Your task to perform on an android device: Add amazon basics triple a to the cart on ebay Image 0: 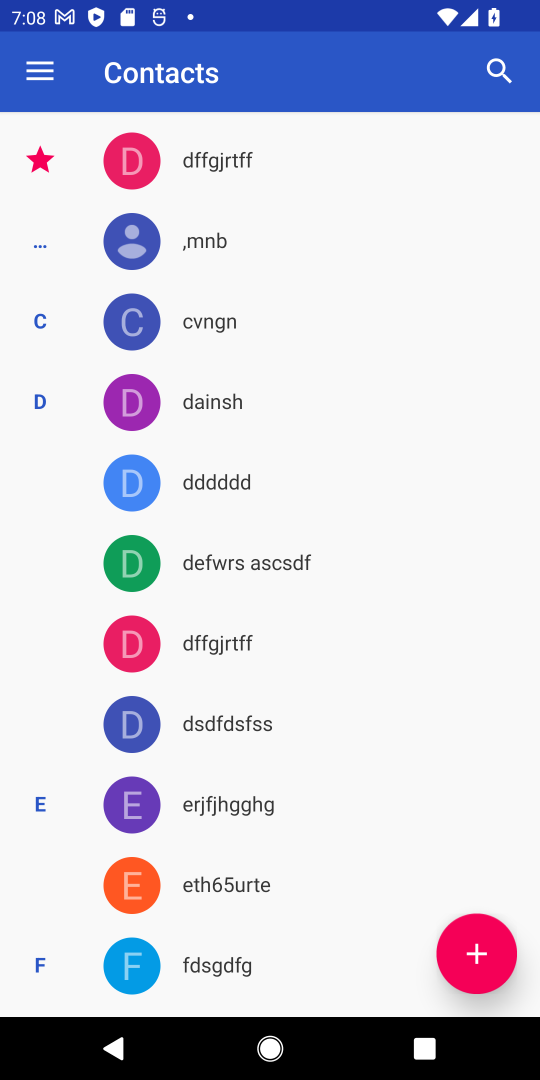
Step 0: press home button
Your task to perform on an android device: Add amazon basics triple a to the cart on ebay Image 1: 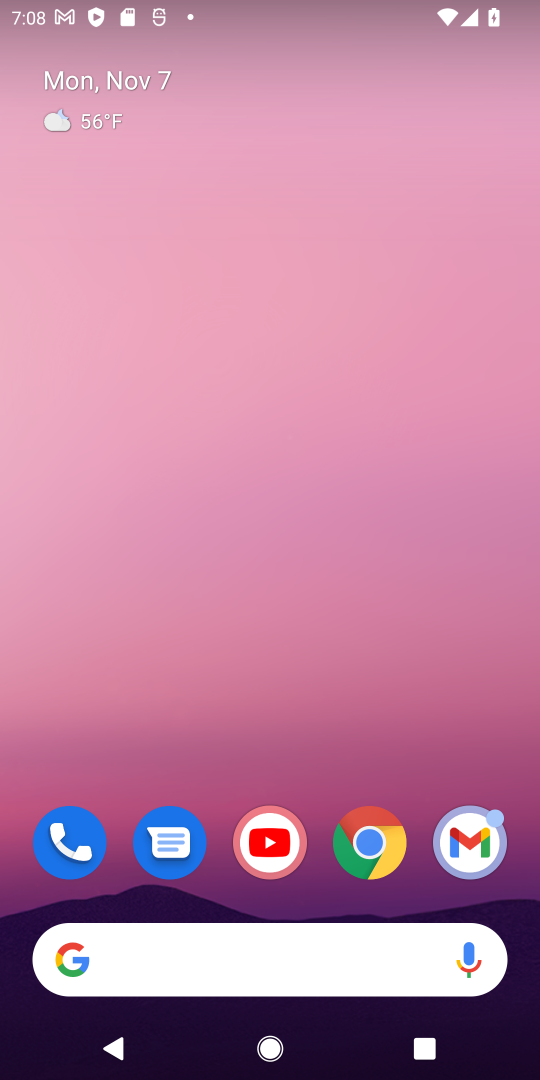
Step 1: click (368, 852)
Your task to perform on an android device: Add amazon basics triple a to the cart on ebay Image 2: 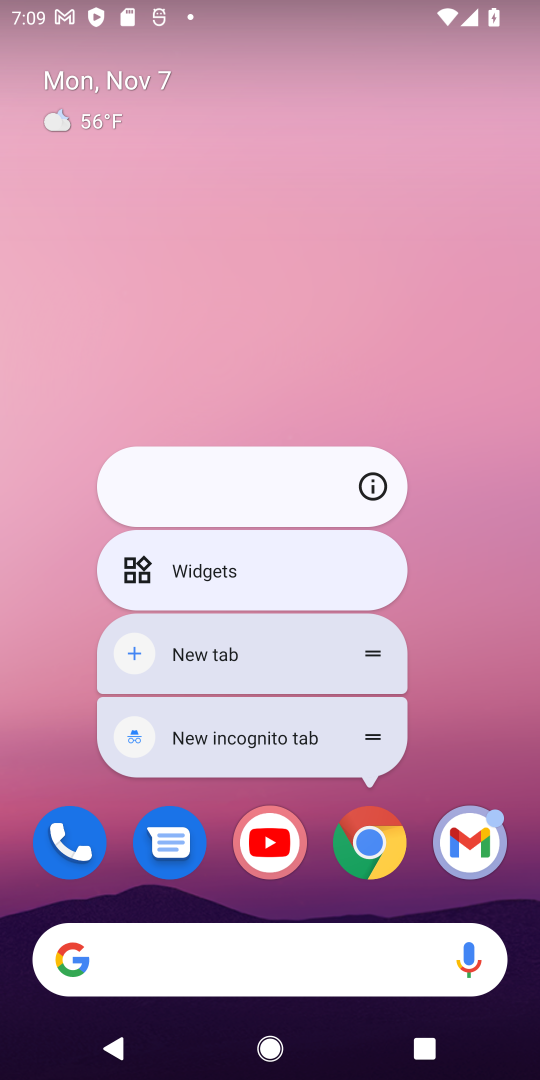
Step 2: click (367, 850)
Your task to perform on an android device: Add amazon basics triple a to the cart on ebay Image 3: 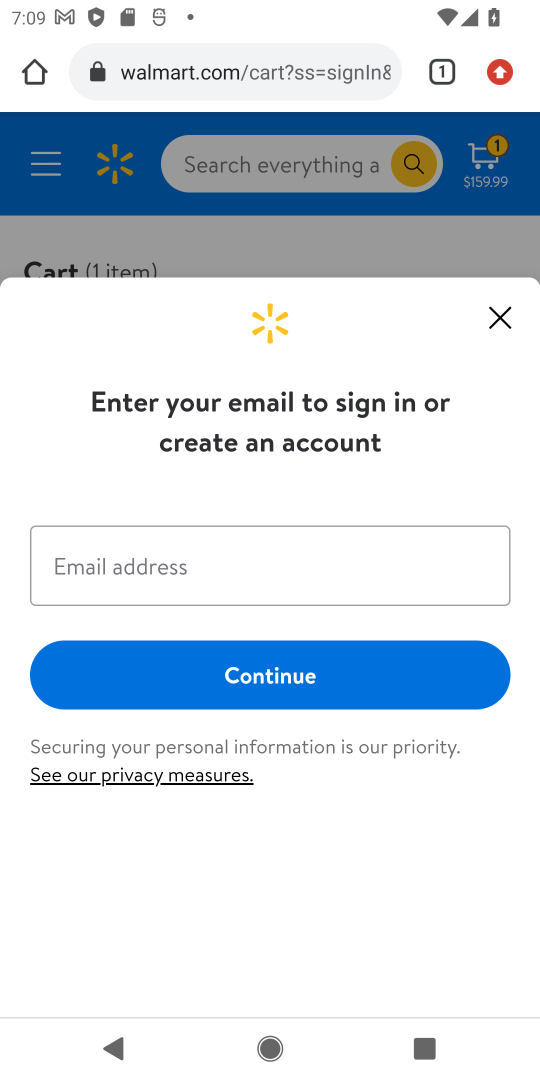
Step 3: click (274, 72)
Your task to perform on an android device: Add amazon basics triple a to the cart on ebay Image 4: 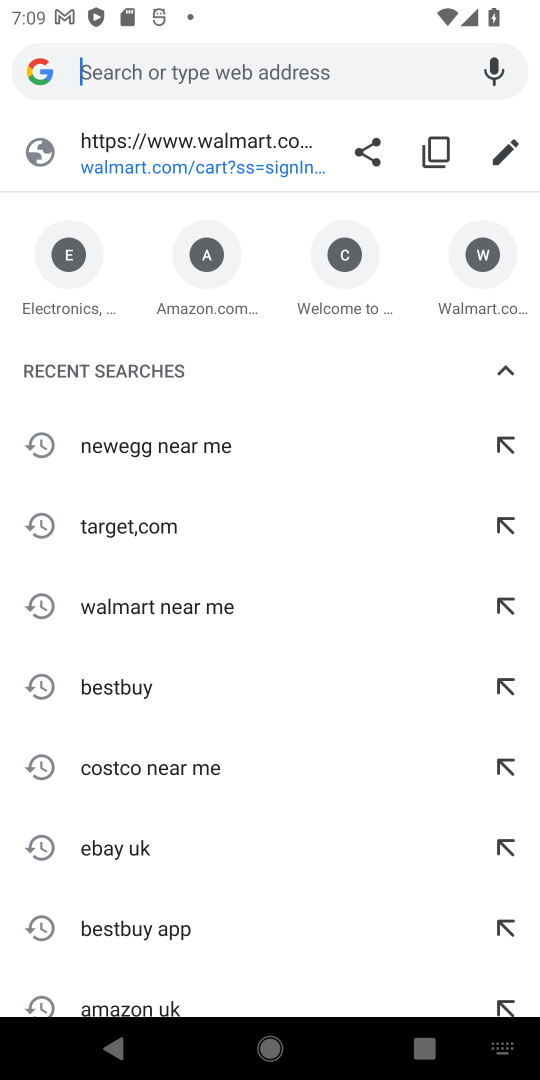
Step 4: click (60, 308)
Your task to perform on an android device: Add amazon basics triple a to the cart on ebay Image 5: 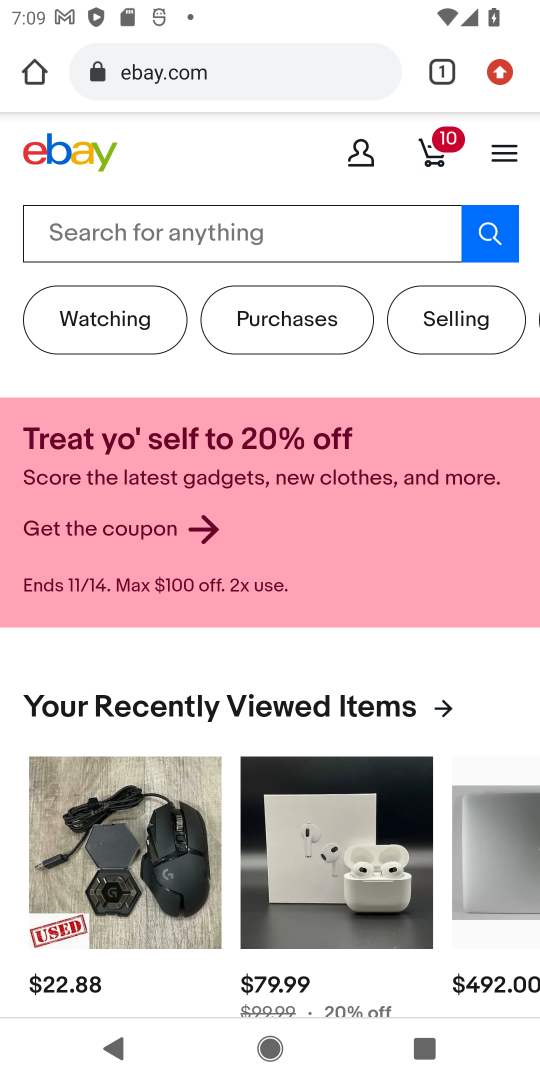
Step 5: click (179, 233)
Your task to perform on an android device: Add amazon basics triple a to the cart on ebay Image 6: 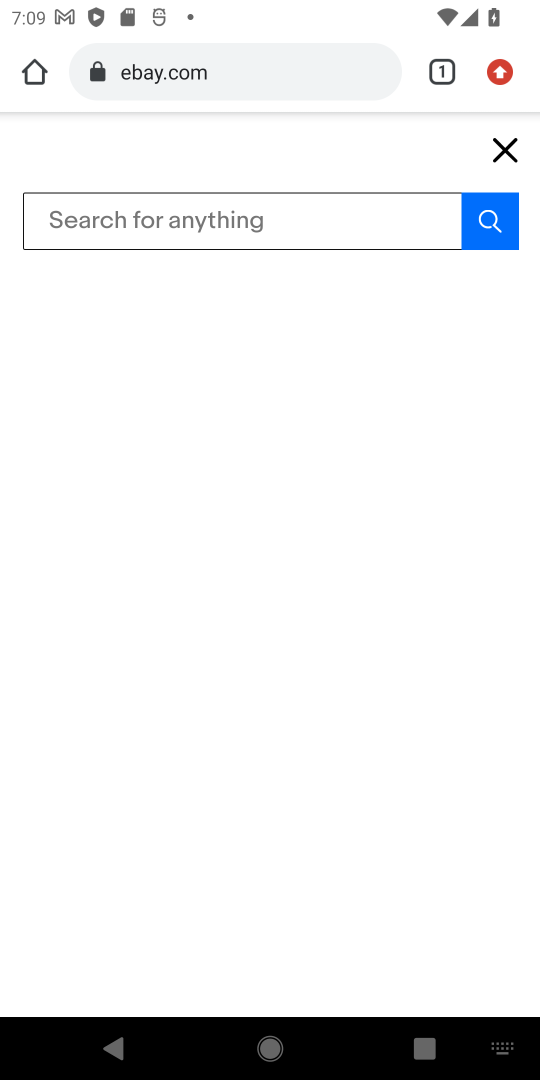
Step 6: type " amazon basics triple a"
Your task to perform on an android device: Add amazon basics triple a to the cart on ebay Image 7: 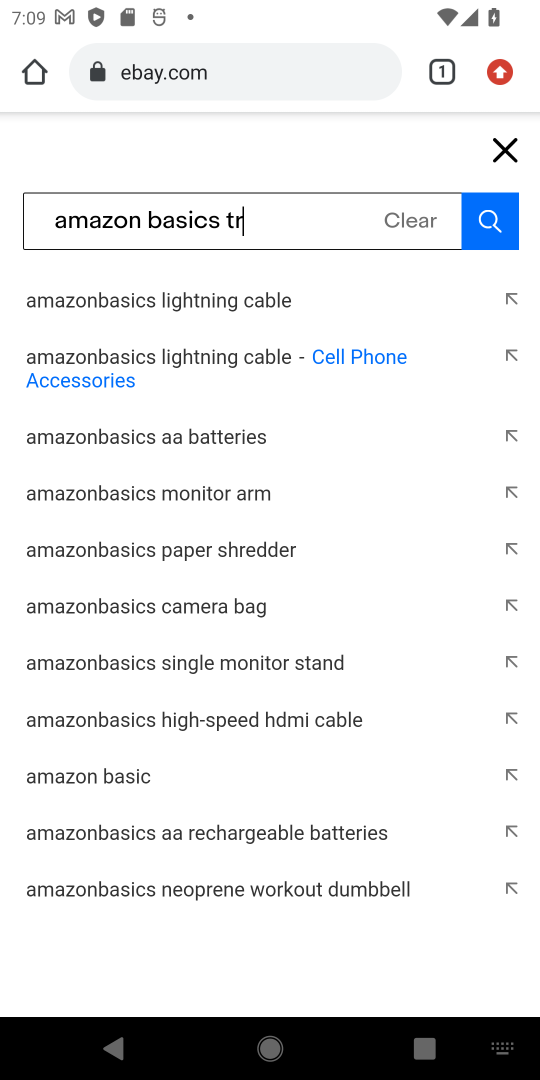
Step 7: press enter
Your task to perform on an android device: Add amazon basics triple a to the cart on ebay Image 8: 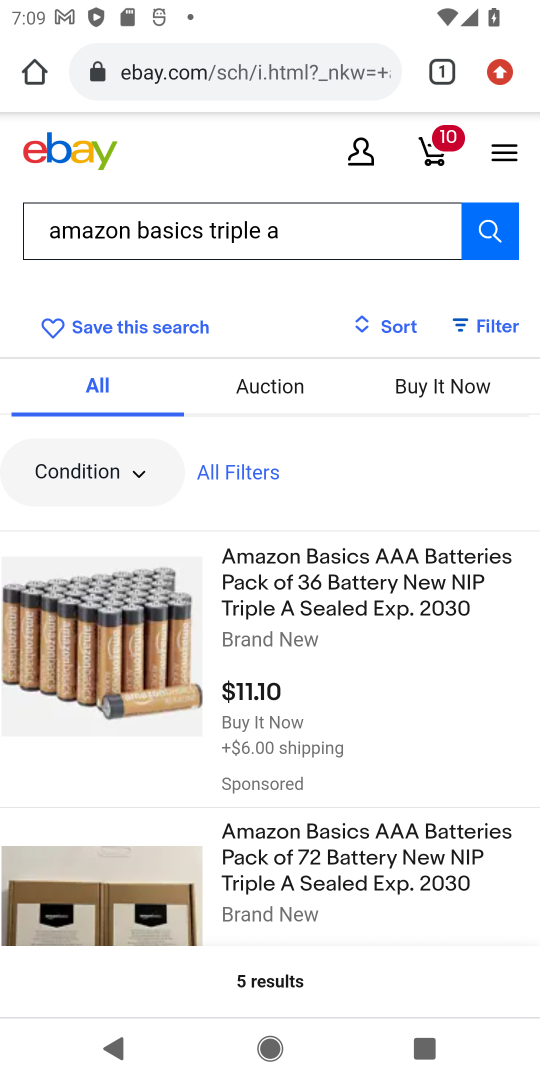
Step 8: click (282, 631)
Your task to perform on an android device: Add amazon basics triple a to the cart on ebay Image 9: 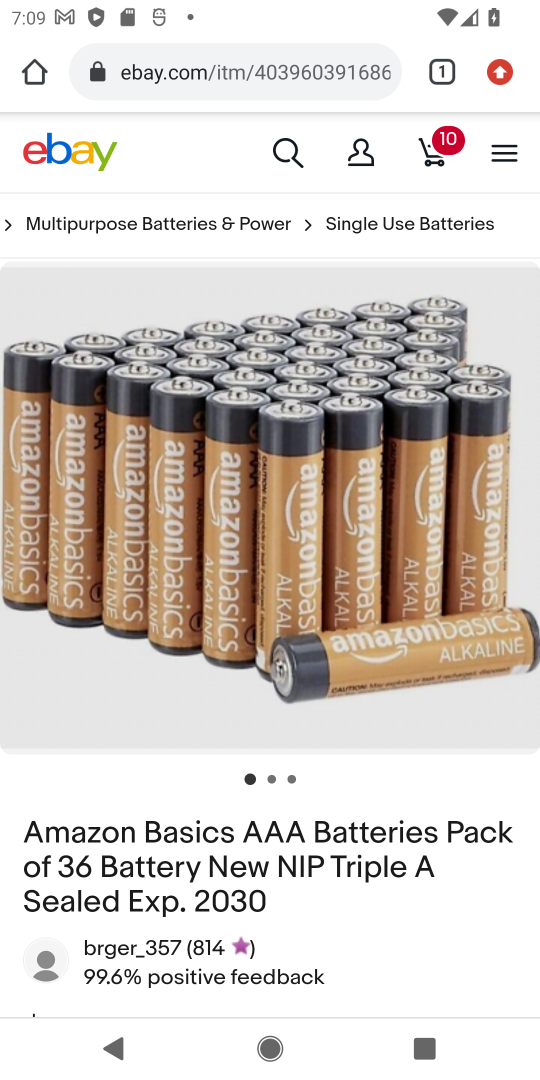
Step 9: drag from (369, 960) to (497, 554)
Your task to perform on an android device: Add amazon basics triple a to the cart on ebay Image 10: 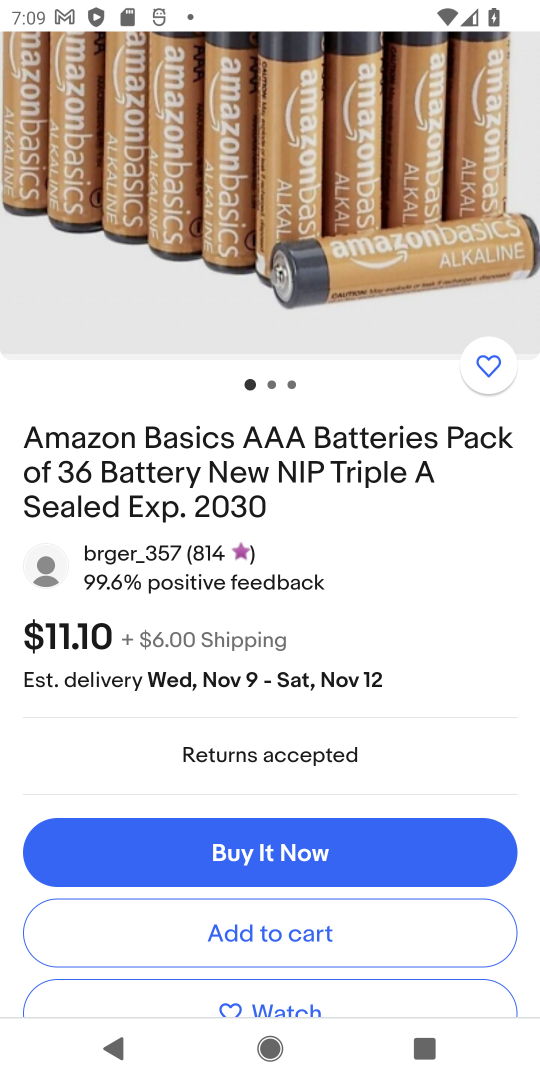
Step 10: click (259, 929)
Your task to perform on an android device: Add amazon basics triple a to the cart on ebay Image 11: 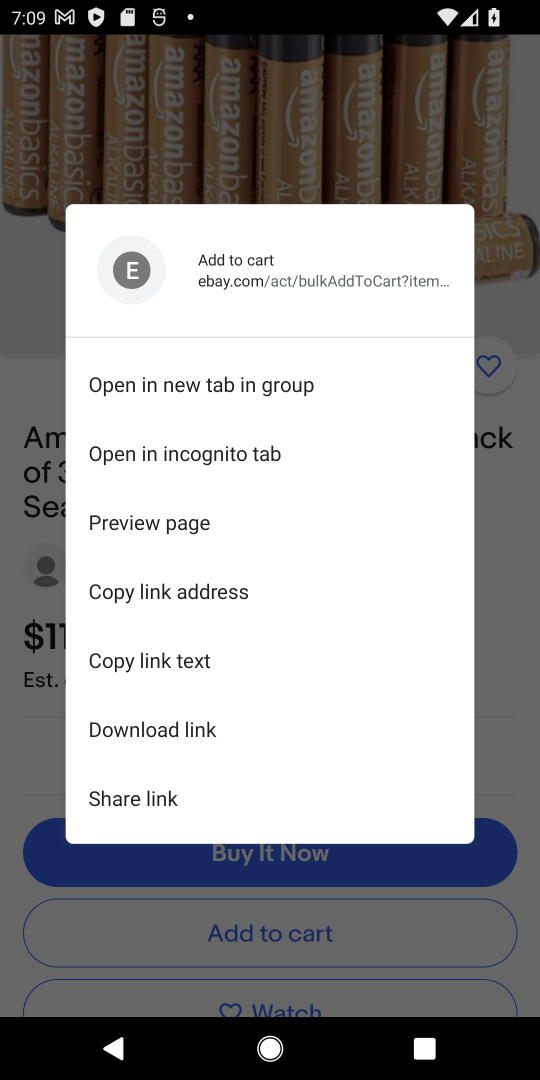
Step 11: click (316, 939)
Your task to perform on an android device: Add amazon basics triple a to the cart on ebay Image 12: 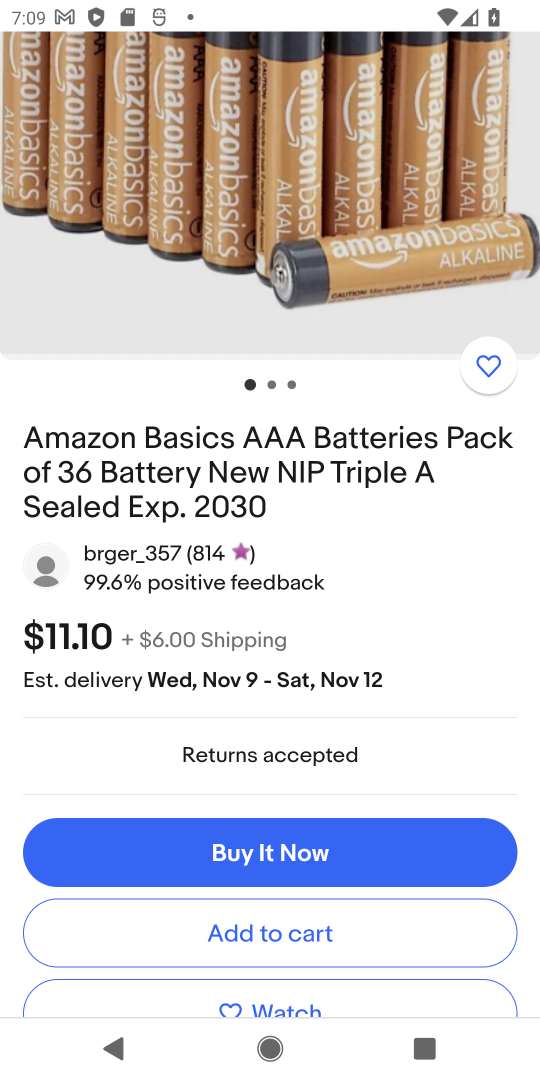
Step 12: click (263, 926)
Your task to perform on an android device: Add amazon basics triple a to the cart on ebay Image 13: 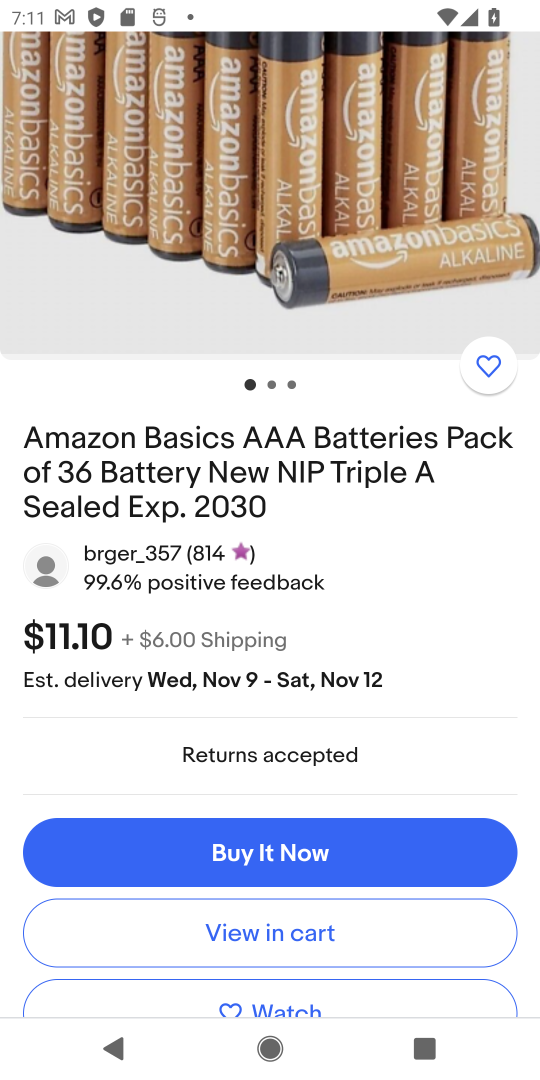
Step 13: task complete